Your task to perform on an android device: delete the emails in spam in the gmail app Image 0: 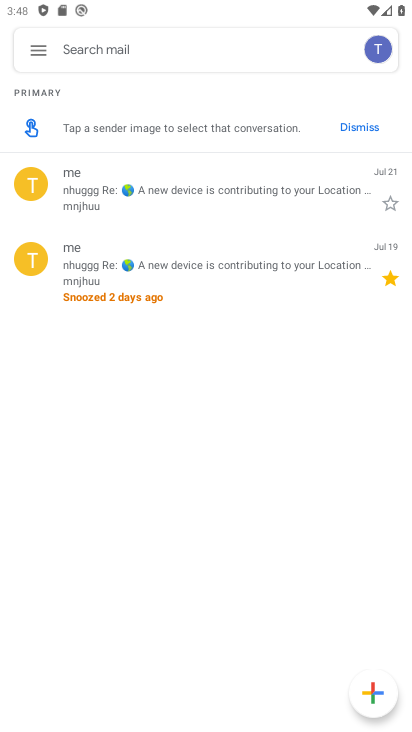
Step 0: click (36, 48)
Your task to perform on an android device: delete the emails in spam in the gmail app Image 1: 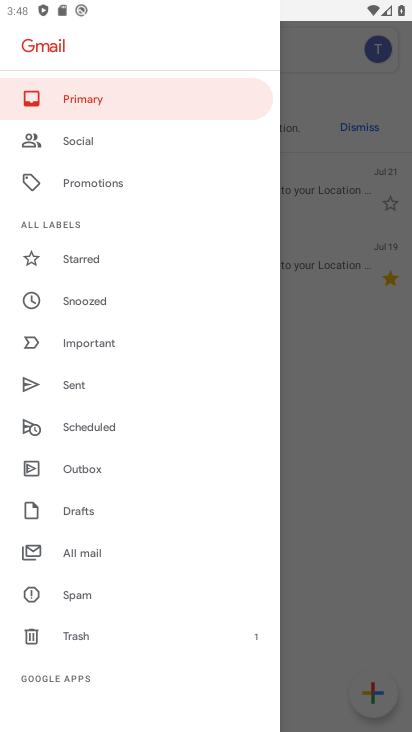
Step 1: click (92, 598)
Your task to perform on an android device: delete the emails in spam in the gmail app Image 2: 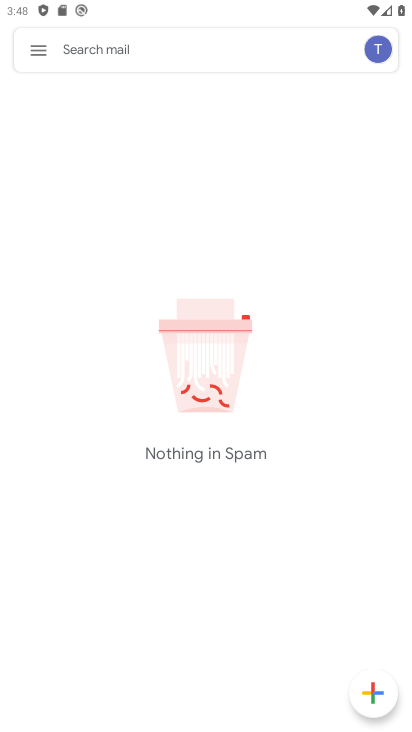
Step 2: task complete